Your task to perform on an android device: What's the weather going to be tomorrow? Image 0: 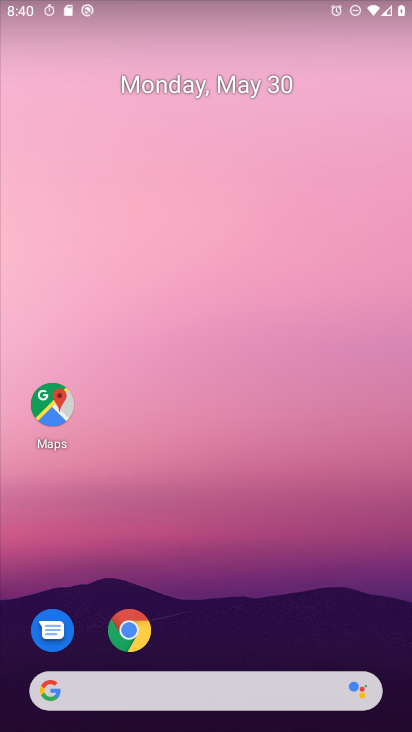
Step 0: drag from (304, 626) to (241, 80)
Your task to perform on an android device: What's the weather going to be tomorrow? Image 1: 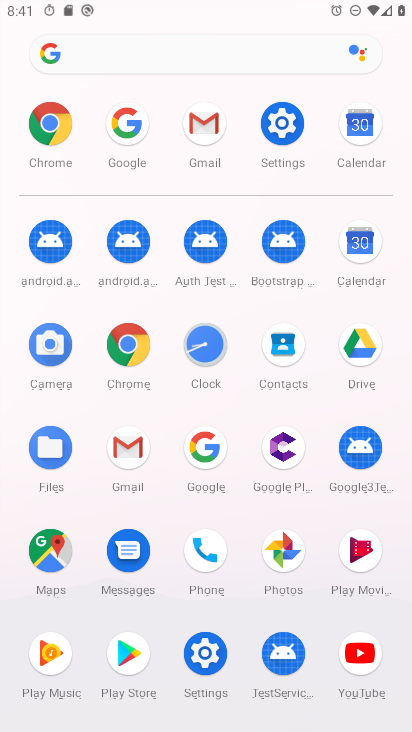
Step 1: click (197, 455)
Your task to perform on an android device: What's the weather going to be tomorrow? Image 2: 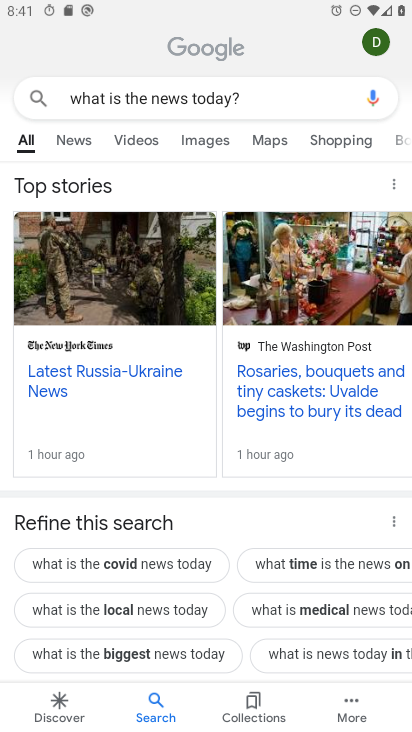
Step 2: press back button
Your task to perform on an android device: What's the weather going to be tomorrow? Image 3: 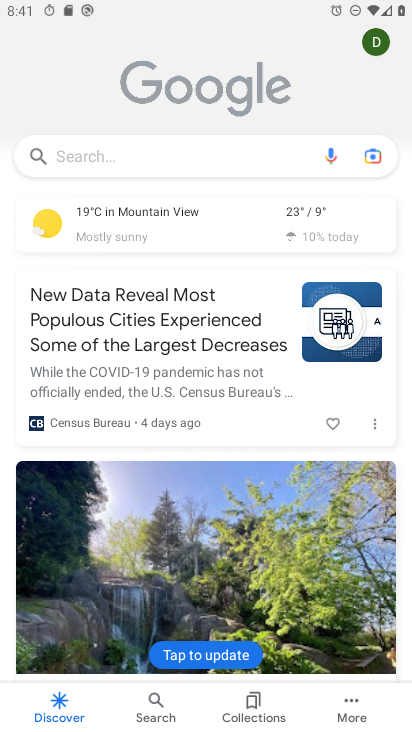
Step 3: click (118, 144)
Your task to perform on an android device: What's the weather going to be tomorrow? Image 4: 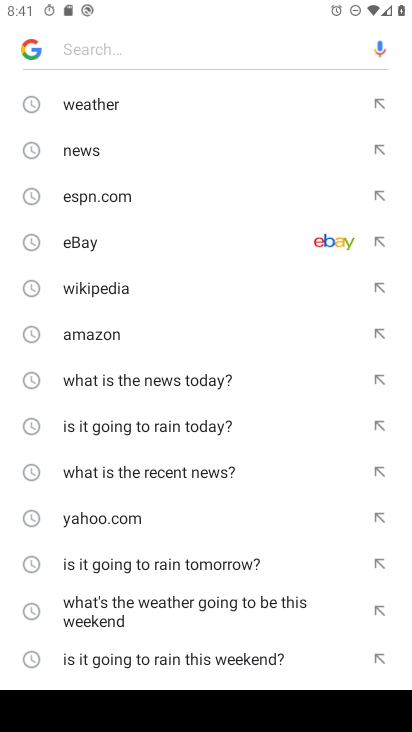
Step 4: drag from (156, 609) to (205, 259)
Your task to perform on an android device: What's the weather going to be tomorrow? Image 5: 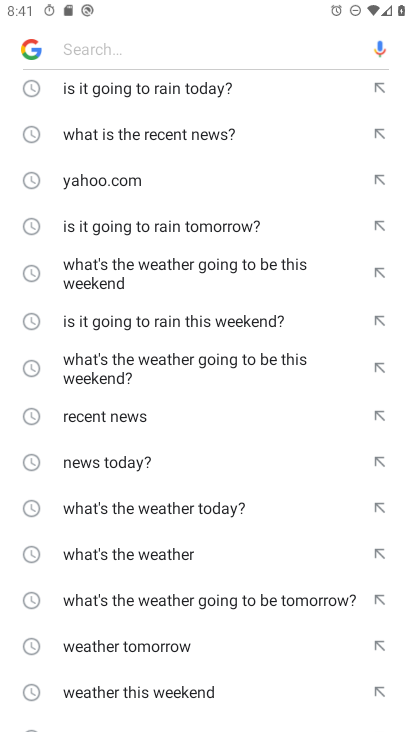
Step 5: click (157, 604)
Your task to perform on an android device: What's the weather going to be tomorrow? Image 6: 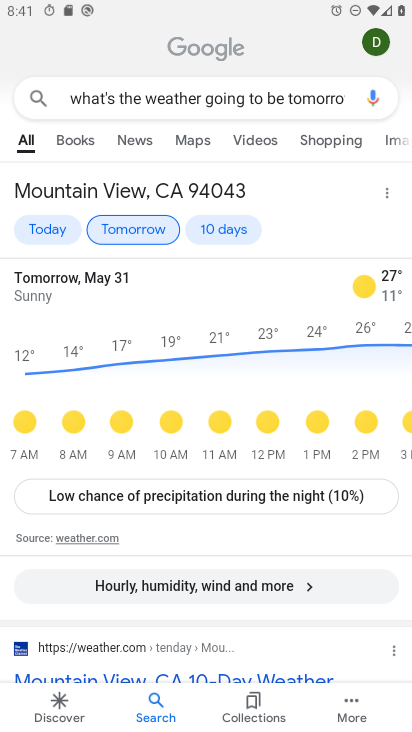
Step 6: task complete